Your task to perform on an android device: add a label to a message in the gmail app Image 0: 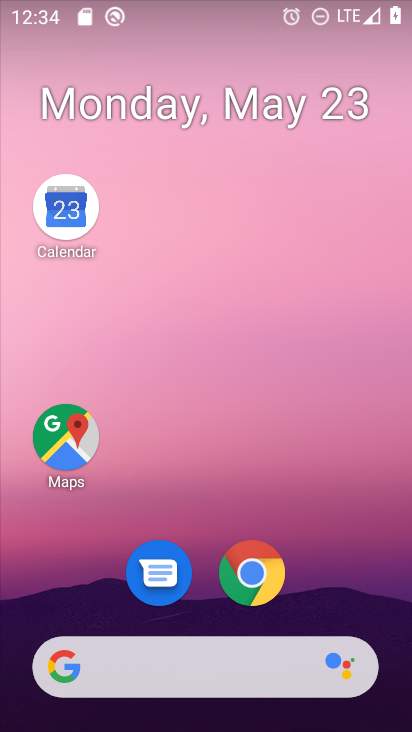
Step 0: drag from (326, 613) to (349, 58)
Your task to perform on an android device: add a label to a message in the gmail app Image 1: 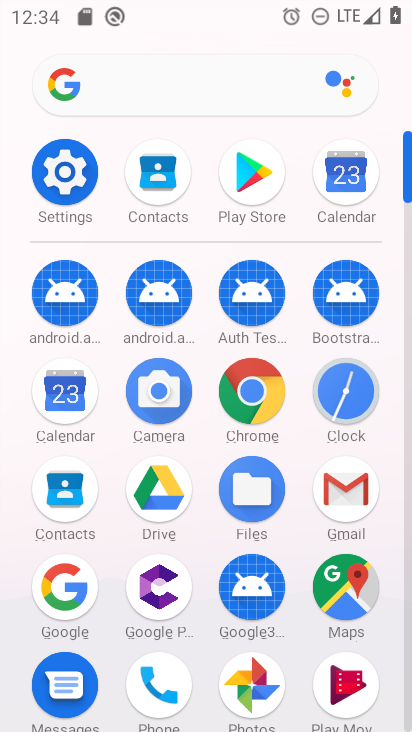
Step 1: click (335, 477)
Your task to perform on an android device: add a label to a message in the gmail app Image 2: 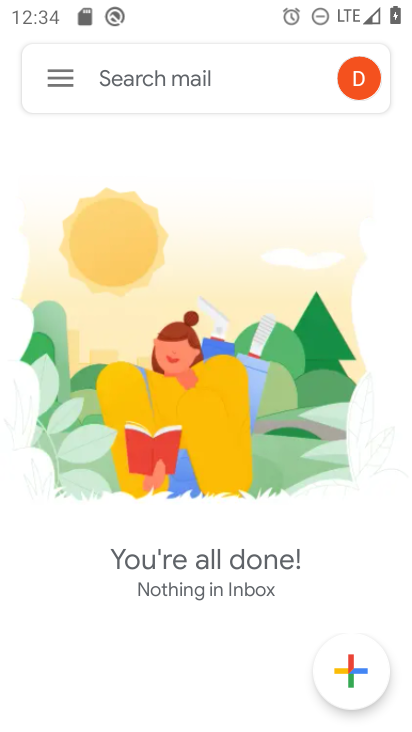
Step 2: click (66, 76)
Your task to perform on an android device: add a label to a message in the gmail app Image 3: 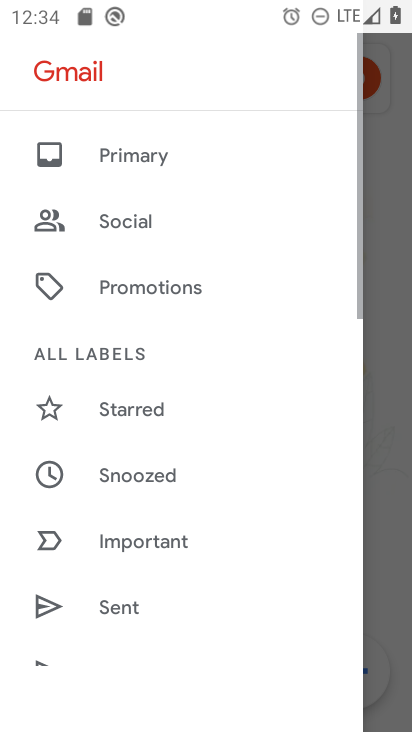
Step 3: drag from (137, 574) to (206, 296)
Your task to perform on an android device: add a label to a message in the gmail app Image 4: 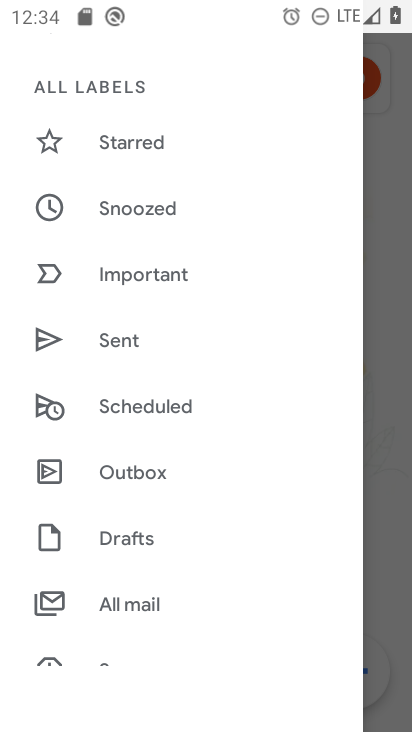
Step 4: drag from (161, 586) to (217, 327)
Your task to perform on an android device: add a label to a message in the gmail app Image 5: 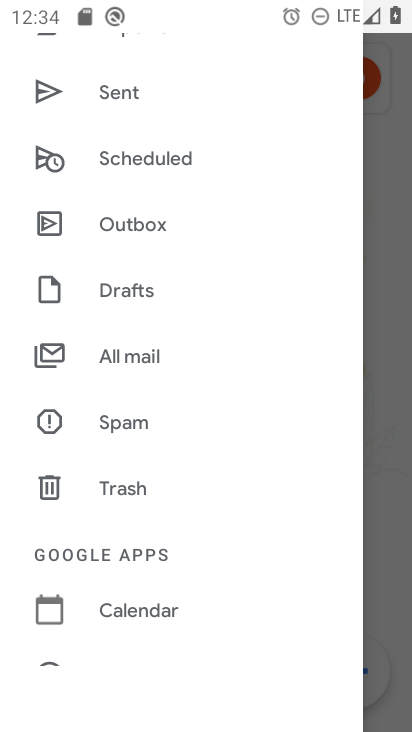
Step 5: drag from (159, 582) to (198, 373)
Your task to perform on an android device: add a label to a message in the gmail app Image 6: 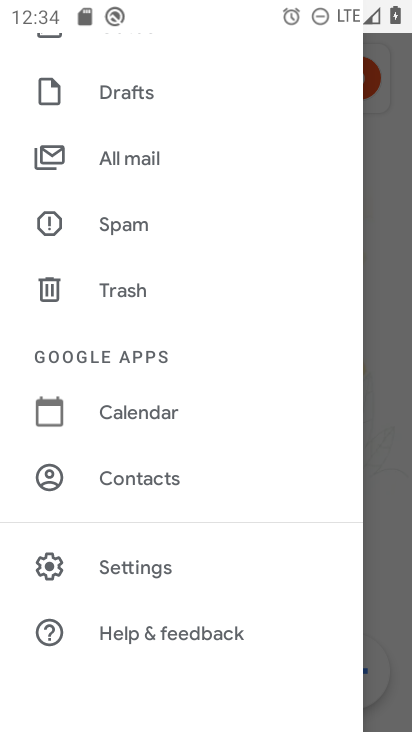
Step 6: click (170, 143)
Your task to perform on an android device: add a label to a message in the gmail app Image 7: 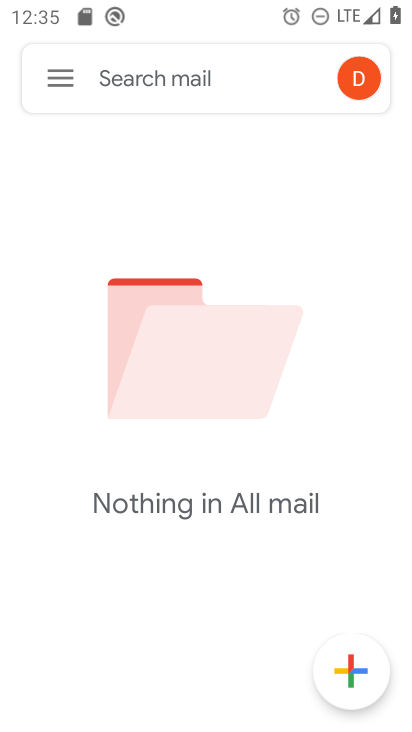
Step 7: task complete